Your task to perform on an android device: Open the map Image 0: 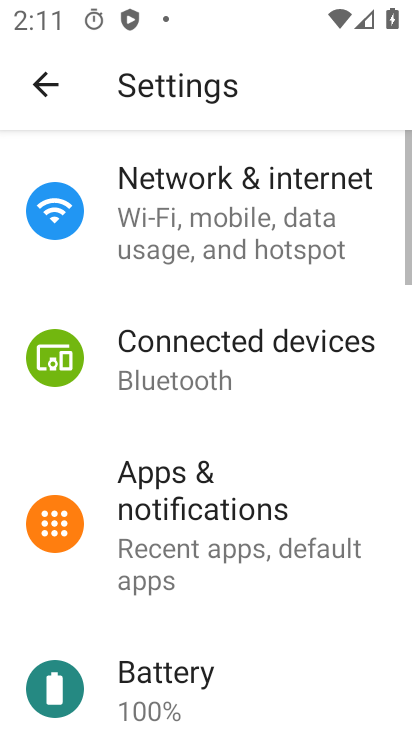
Step 0: press home button
Your task to perform on an android device: Open the map Image 1: 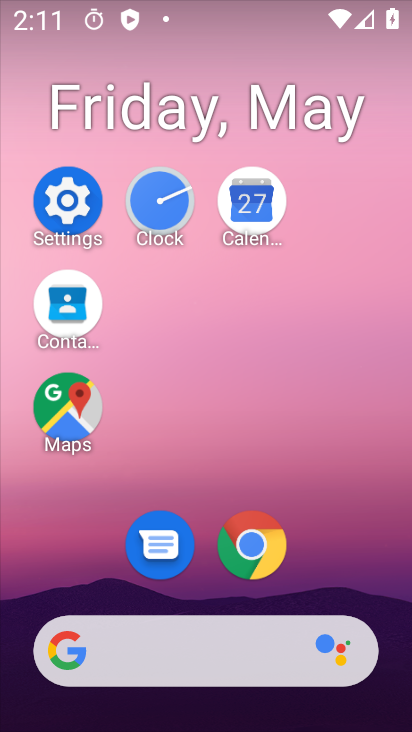
Step 1: click (78, 401)
Your task to perform on an android device: Open the map Image 2: 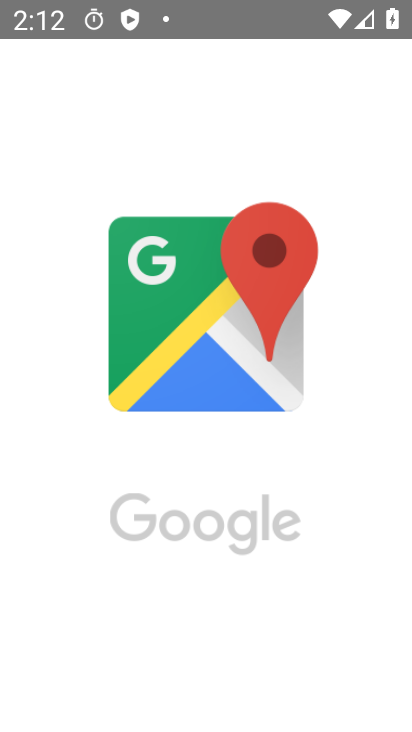
Step 2: task complete